Your task to perform on an android device: Go to Google Image 0: 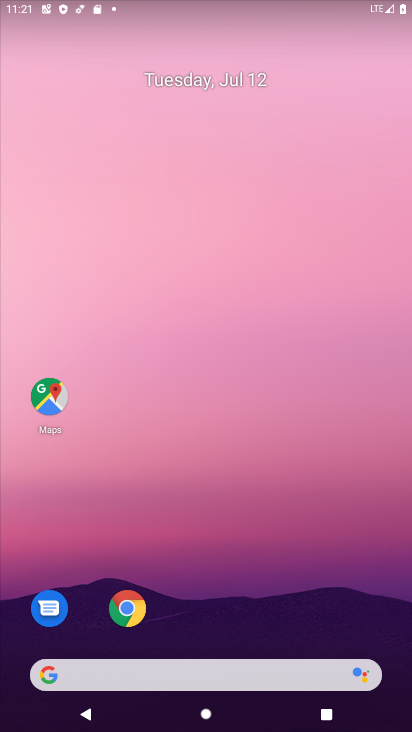
Step 0: click (125, 660)
Your task to perform on an android device: Go to Google Image 1: 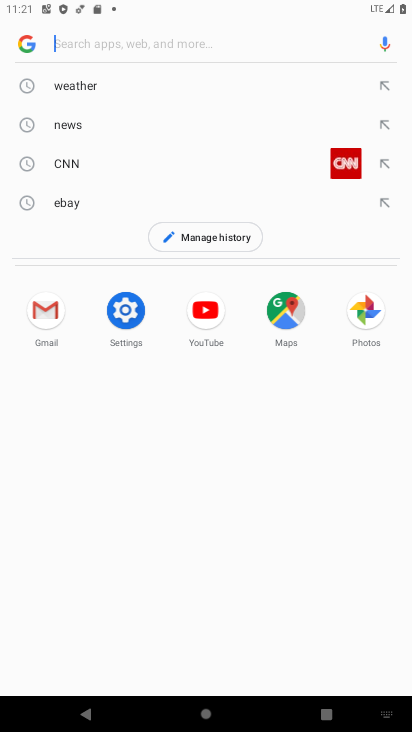
Step 1: task complete